Your task to perform on an android device: see sites visited before in the chrome app Image 0: 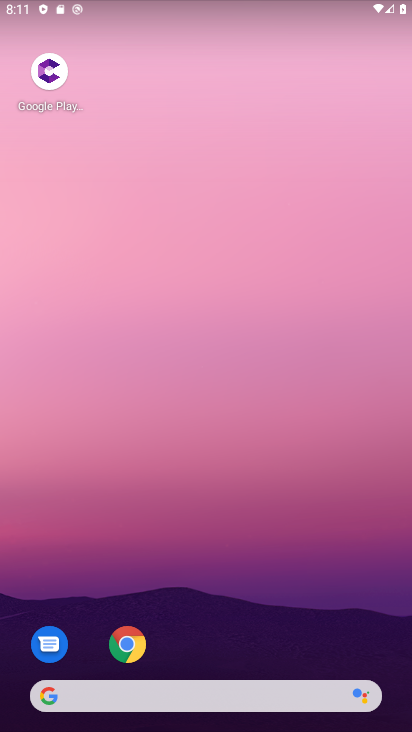
Step 0: click (113, 643)
Your task to perform on an android device: see sites visited before in the chrome app Image 1: 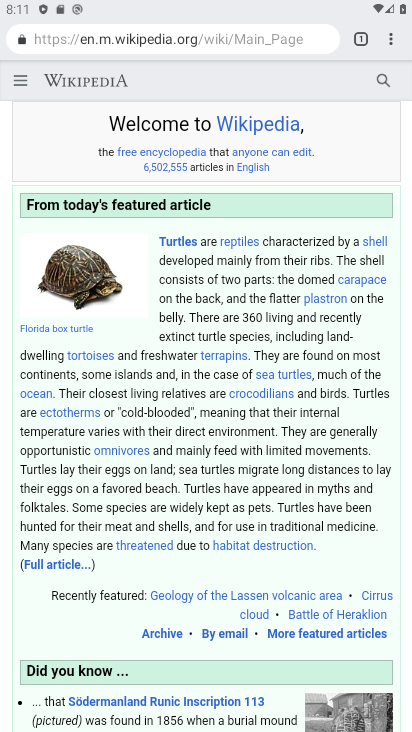
Step 1: task complete